Your task to perform on an android device: What's on my calendar today? Image 0: 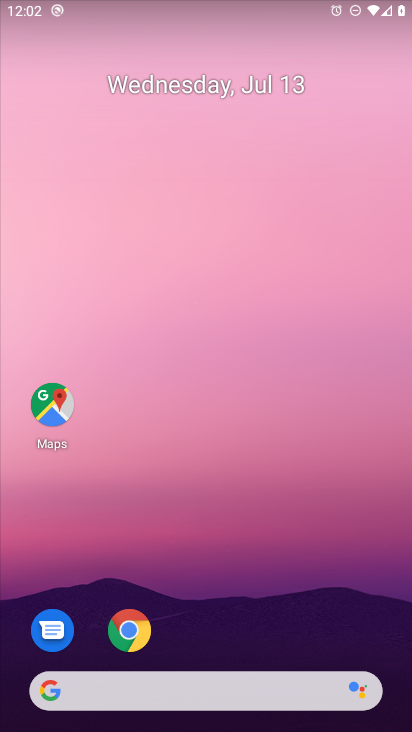
Step 0: press home button
Your task to perform on an android device: What's on my calendar today? Image 1: 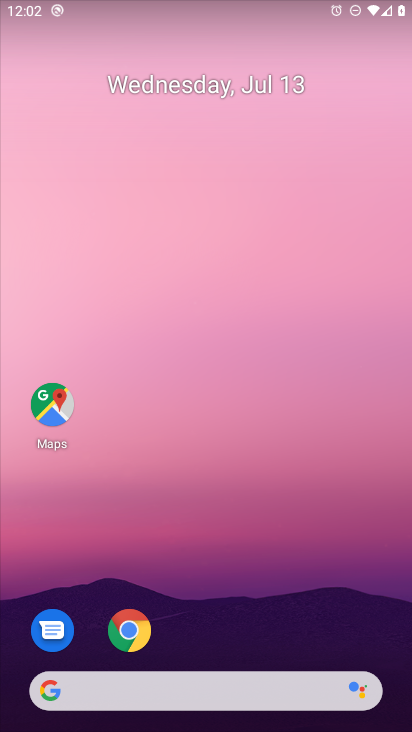
Step 1: drag from (294, 603) to (278, 101)
Your task to perform on an android device: What's on my calendar today? Image 2: 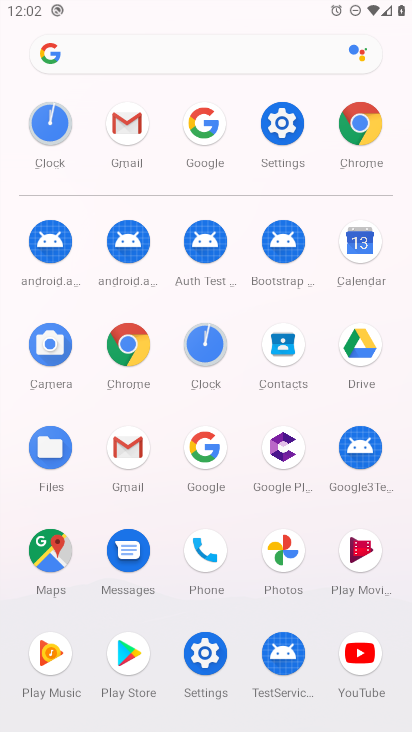
Step 2: click (360, 242)
Your task to perform on an android device: What's on my calendar today? Image 3: 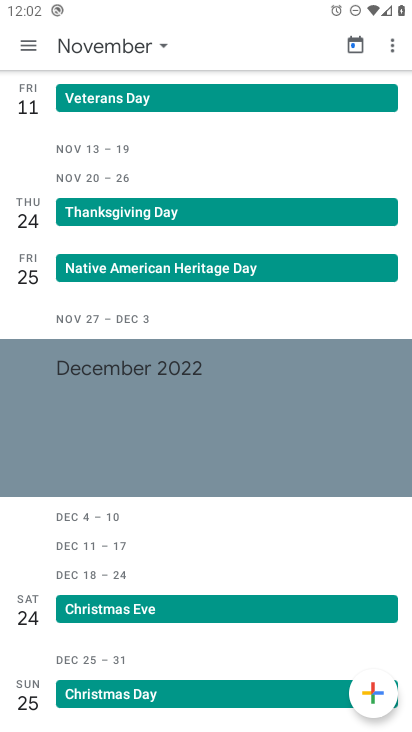
Step 3: click (36, 48)
Your task to perform on an android device: What's on my calendar today? Image 4: 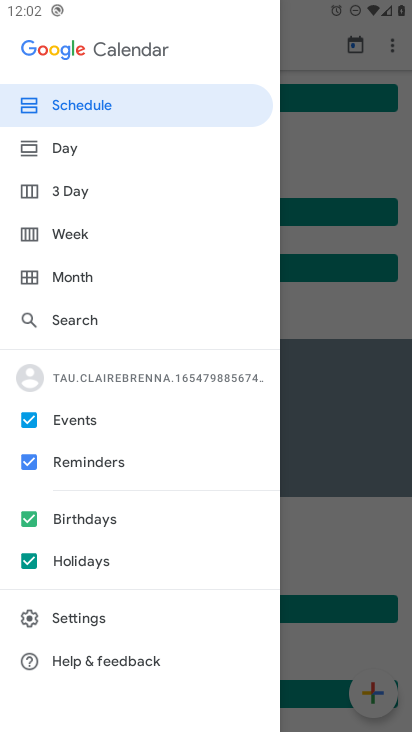
Step 4: click (76, 145)
Your task to perform on an android device: What's on my calendar today? Image 5: 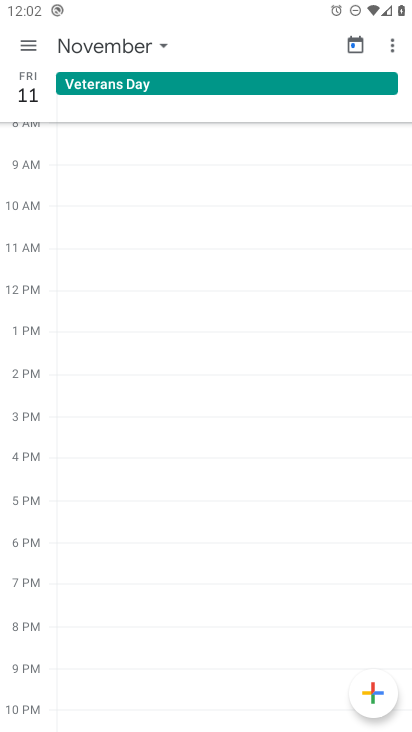
Step 5: task complete